Your task to perform on an android device: Do I have any events tomorrow? Image 0: 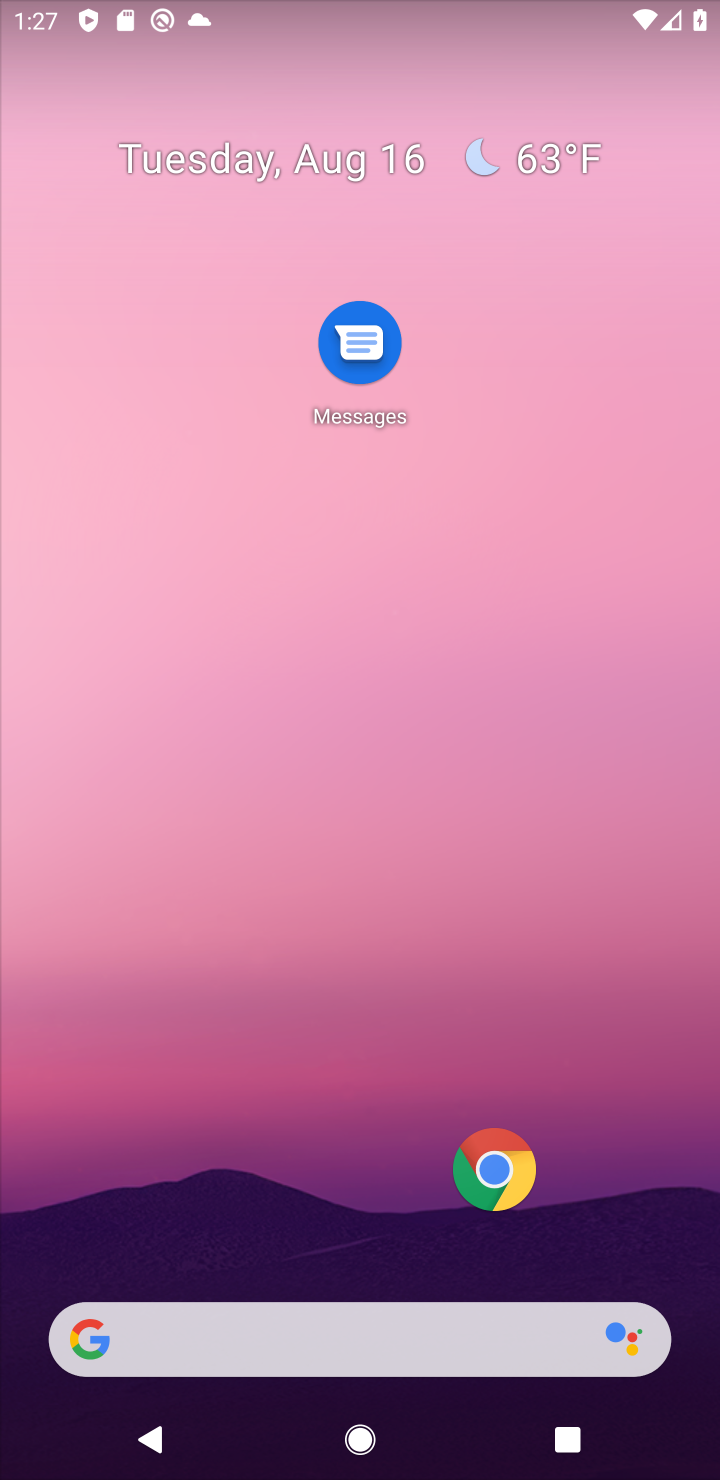
Step 0: drag from (80, 1393) to (45, 46)
Your task to perform on an android device: Do I have any events tomorrow? Image 1: 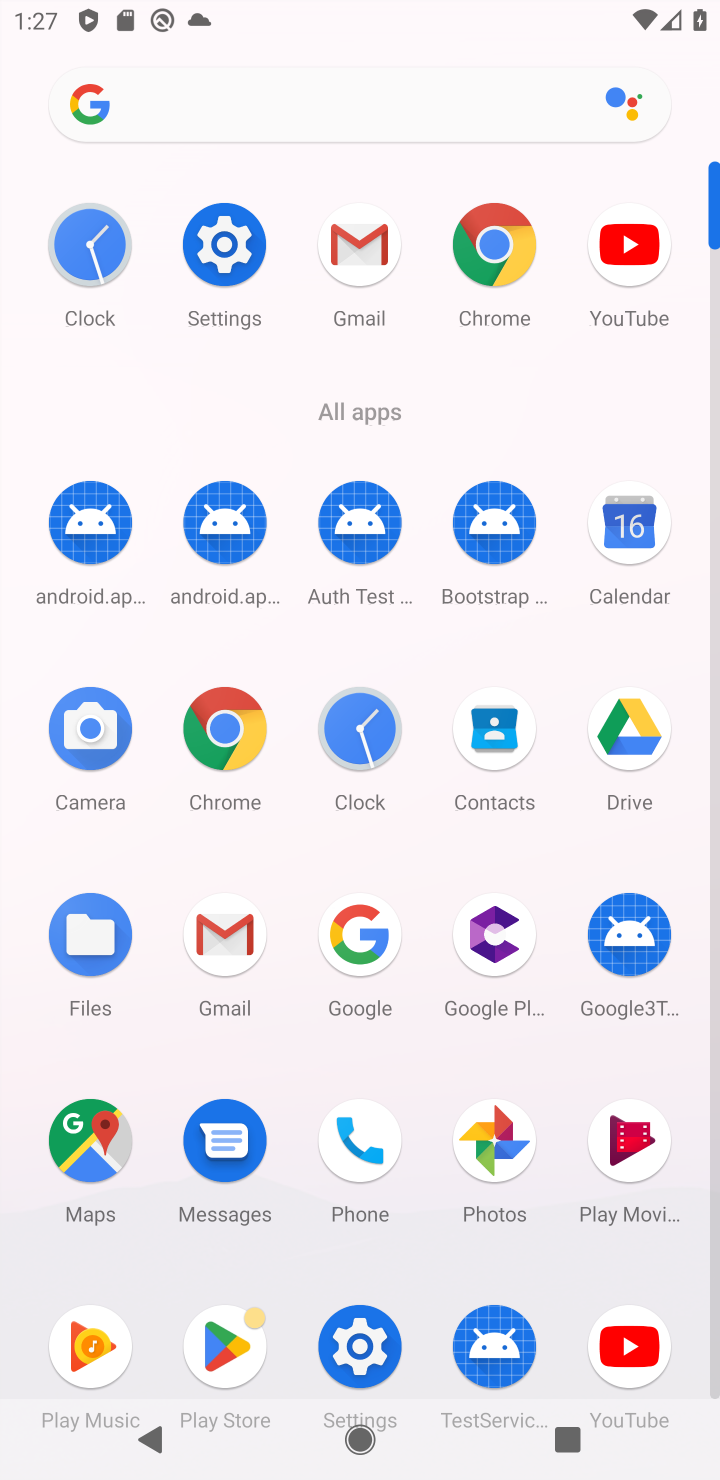
Step 1: click (614, 562)
Your task to perform on an android device: Do I have any events tomorrow? Image 2: 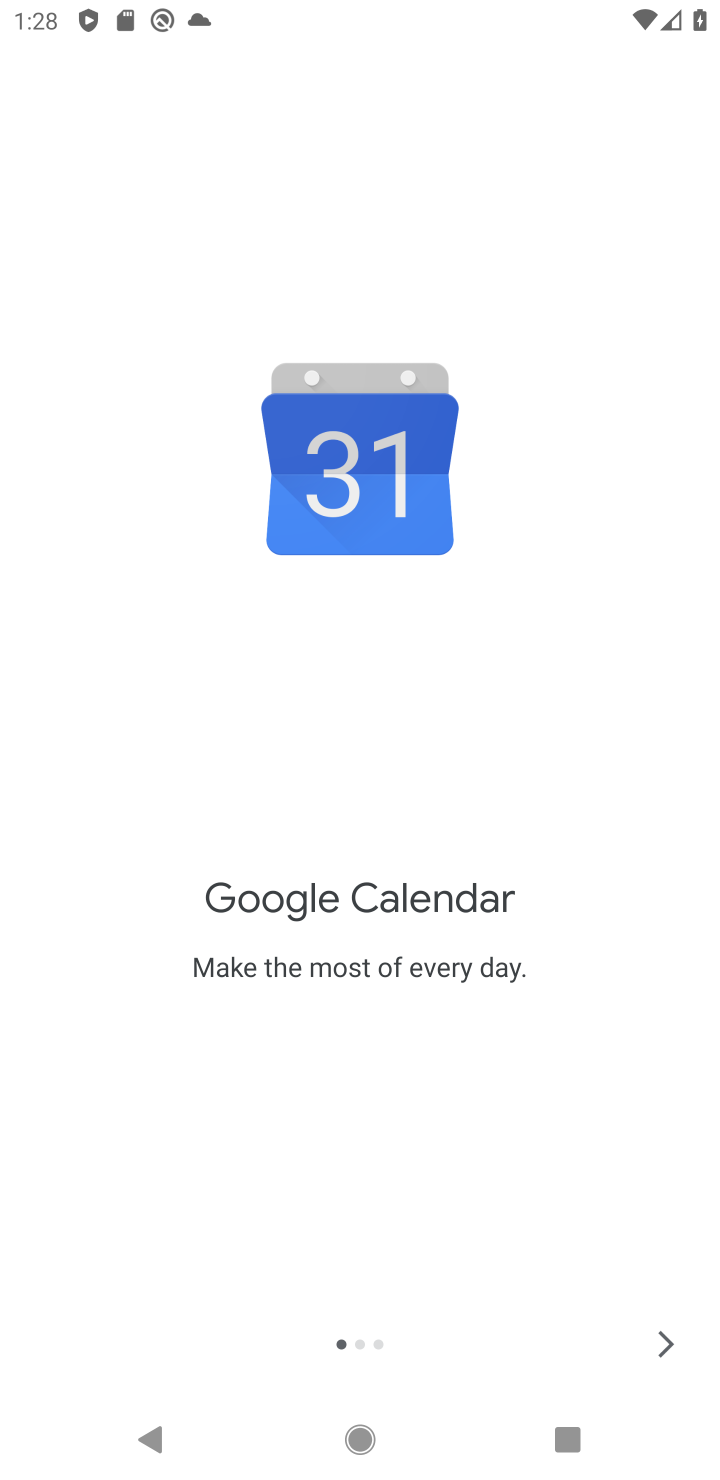
Step 2: click (669, 1360)
Your task to perform on an android device: Do I have any events tomorrow? Image 3: 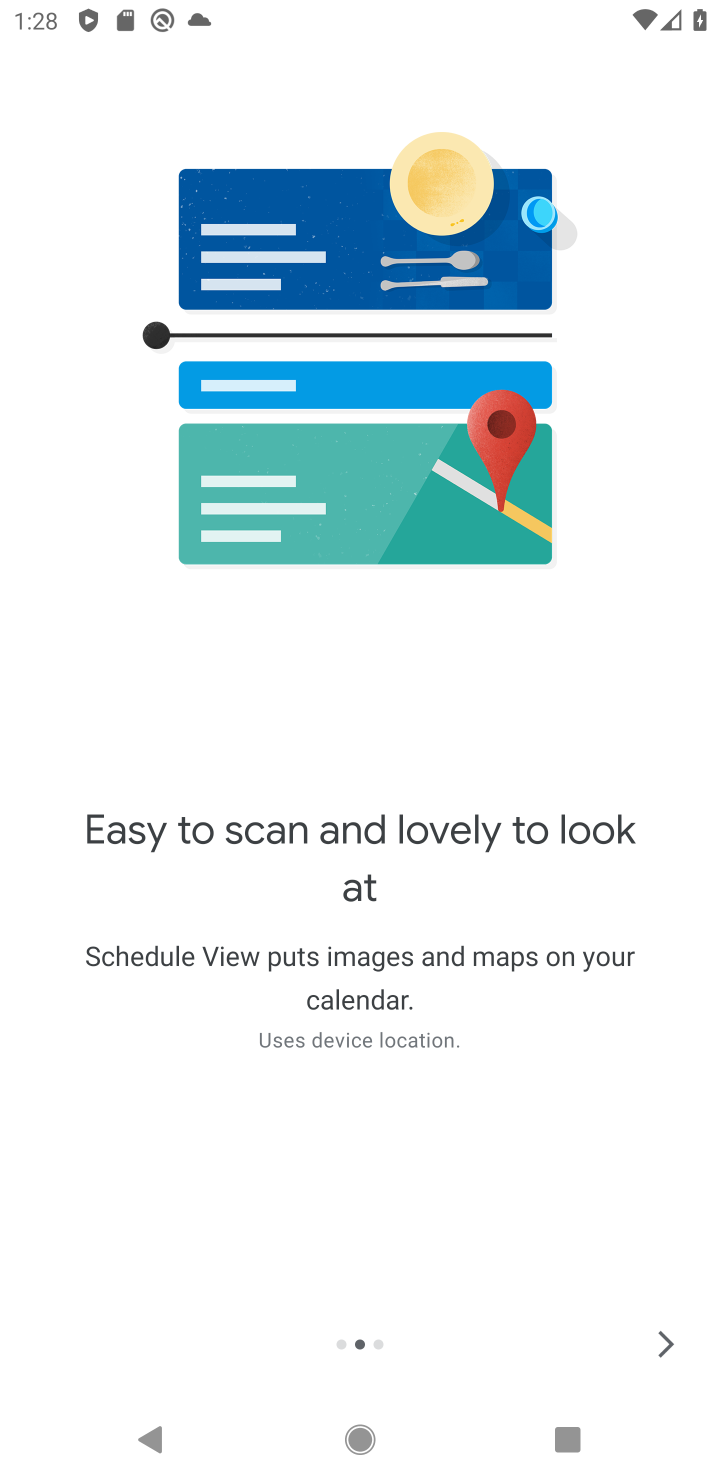
Step 3: click (669, 1360)
Your task to perform on an android device: Do I have any events tomorrow? Image 4: 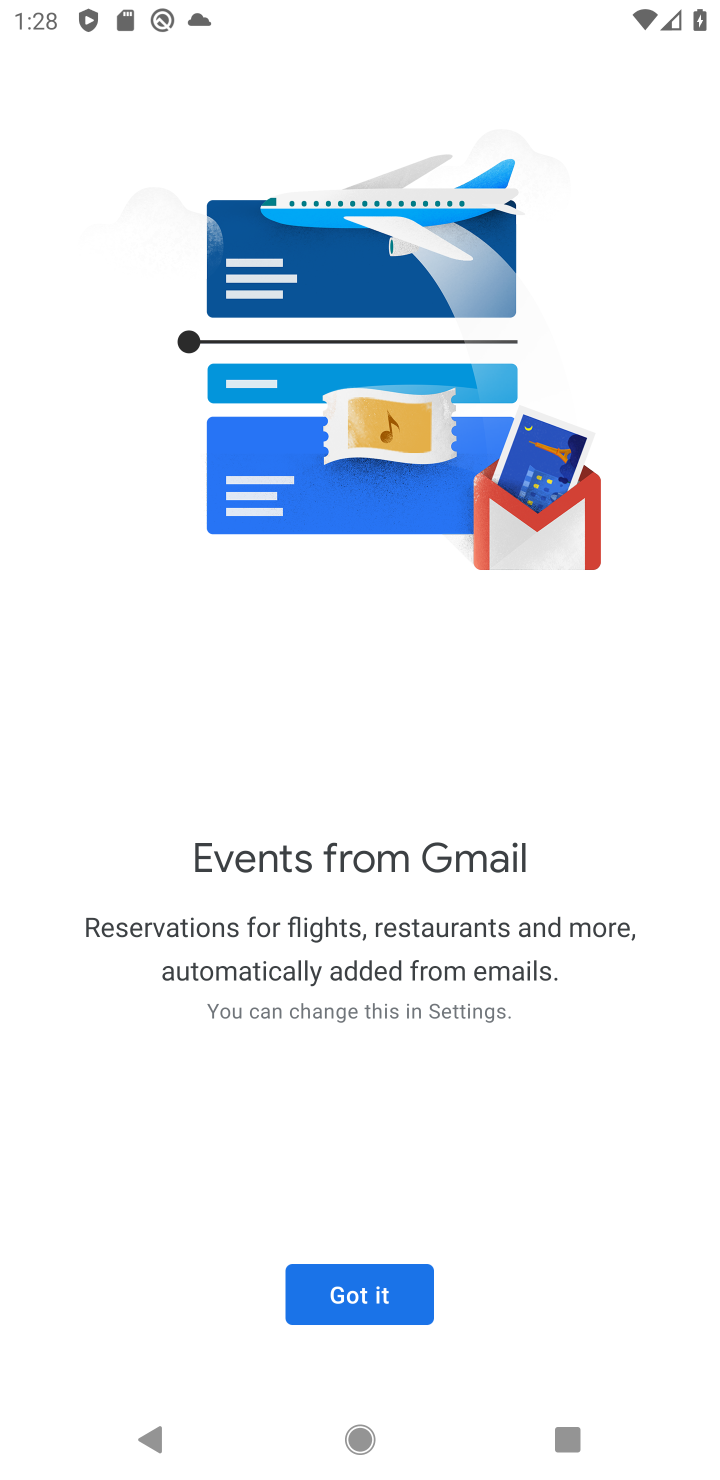
Step 4: click (361, 1282)
Your task to perform on an android device: Do I have any events tomorrow? Image 5: 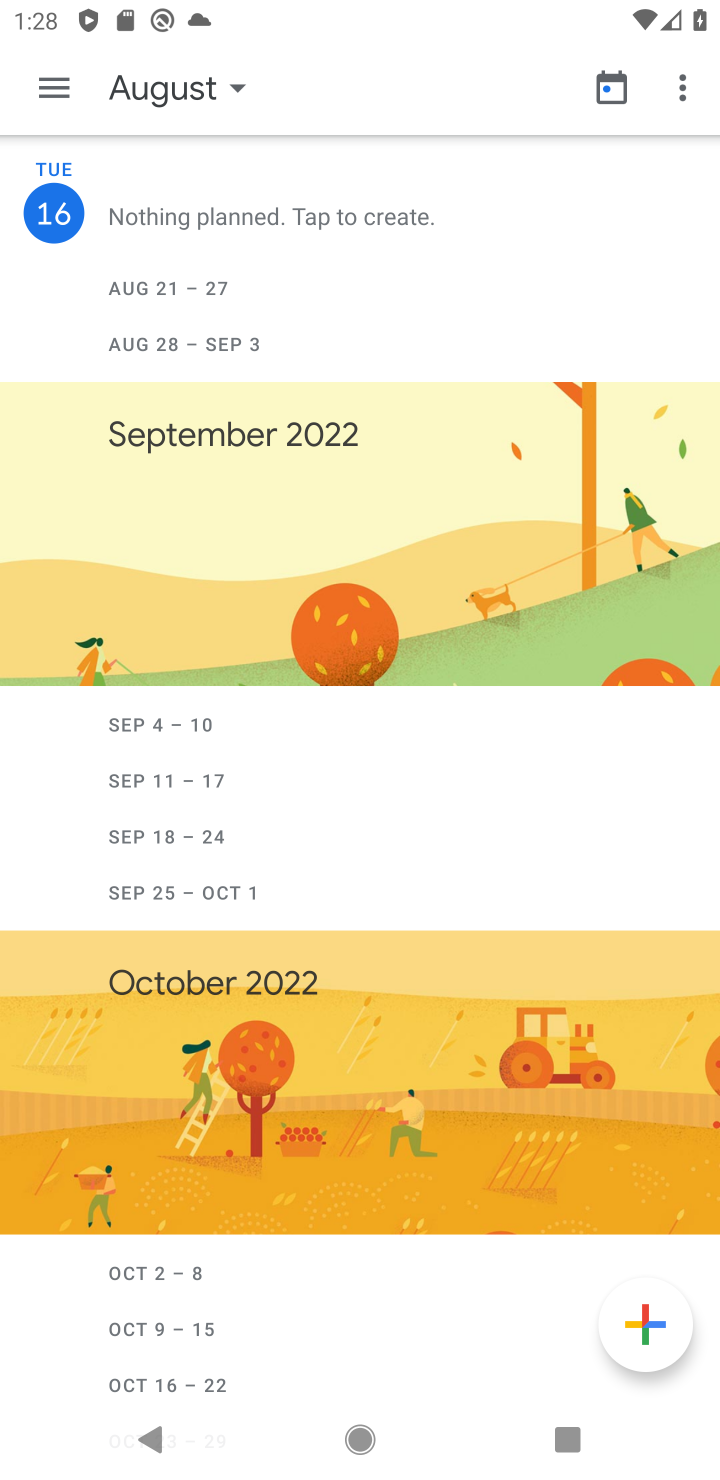
Step 5: click (230, 89)
Your task to perform on an android device: Do I have any events tomorrow? Image 6: 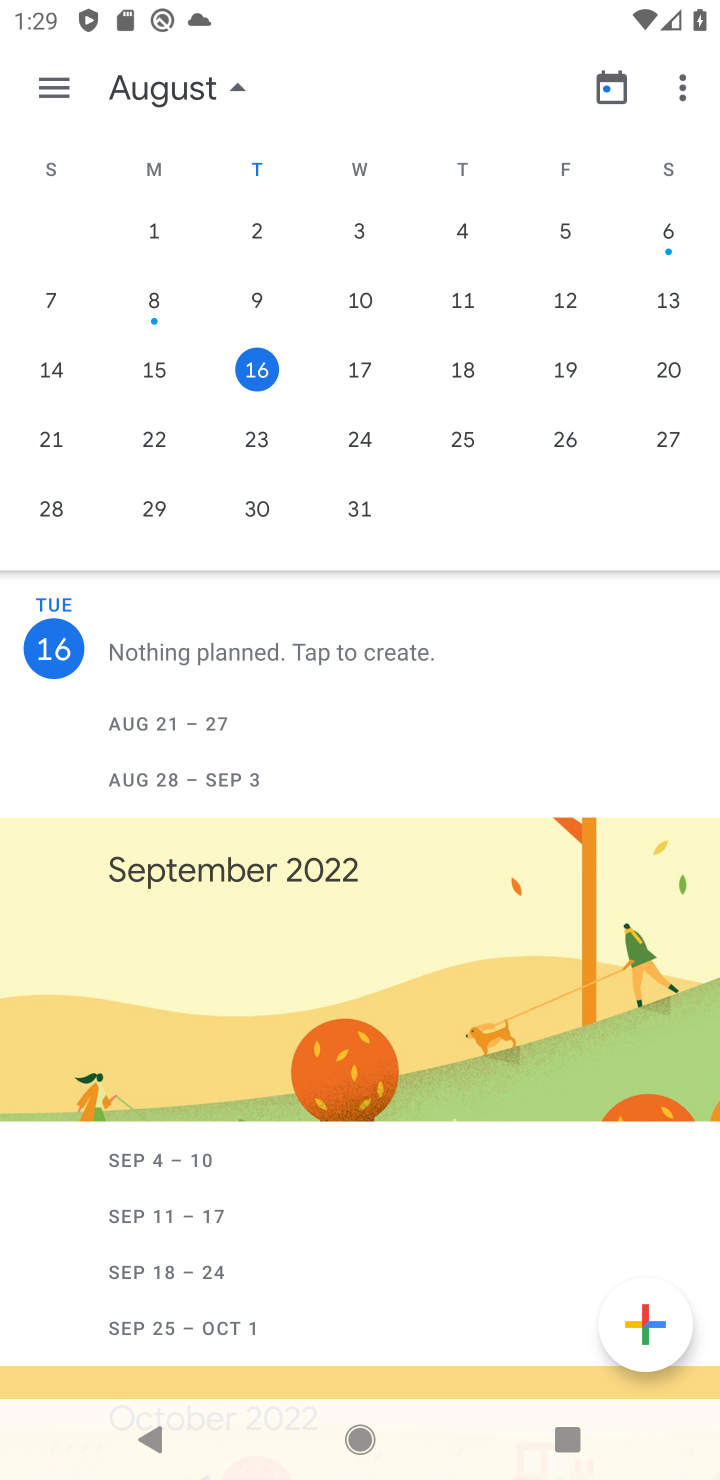
Step 6: task complete